Your task to perform on an android device: turn on translation in the chrome app Image 0: 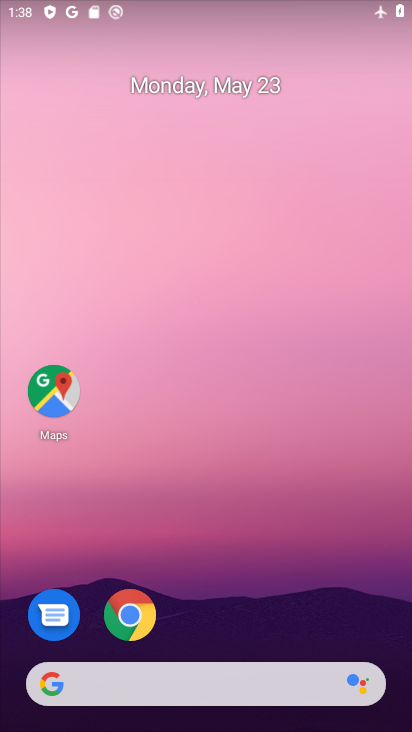
Step 0: drag from (217, 651) to (155, 22)
Your task to perform on an android device: turn on translation in the chrome app Image 1: 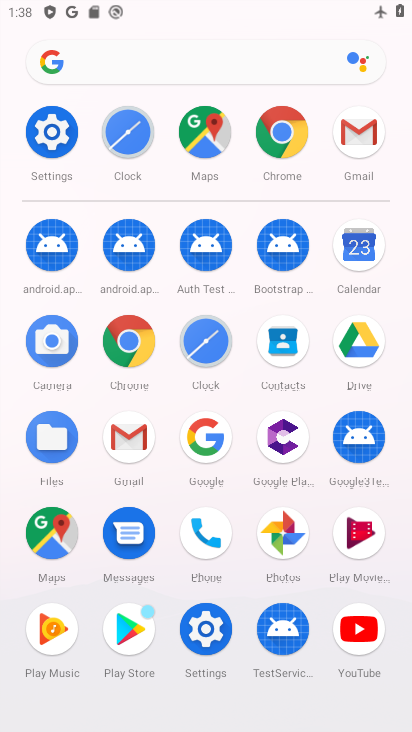
Step 1: click (283, 148)
Your task to perform on an android device: turn on translation in the chrome app Image 2: 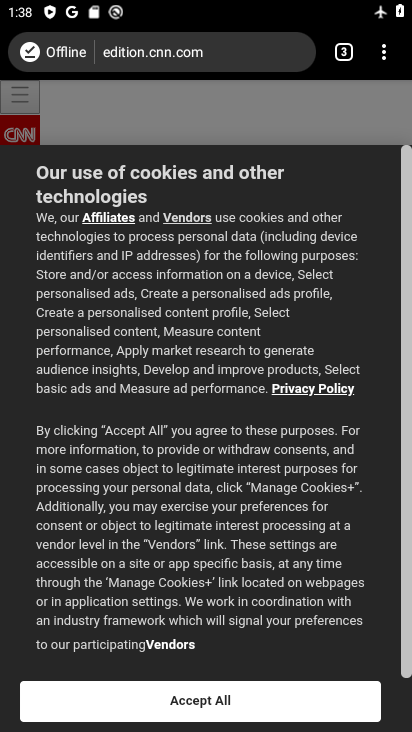
Step 2: click (380, 46)
Your task to perform on an android device: turn on translation in the chrome app Image 3: 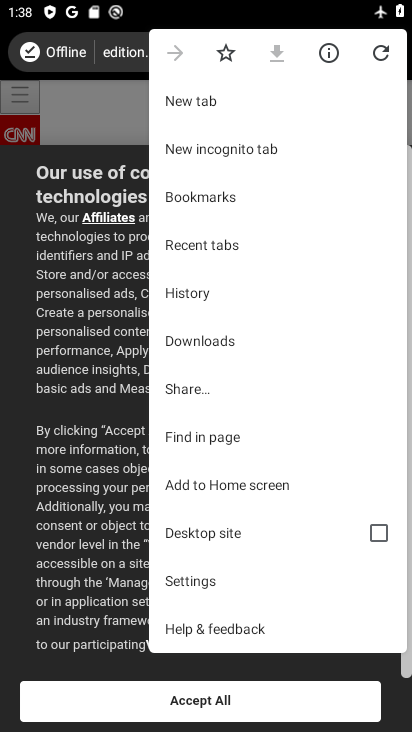
Step 3: click (200, 579)
Your task to perform on an android device: turn on translation in the chrome app Image 4: 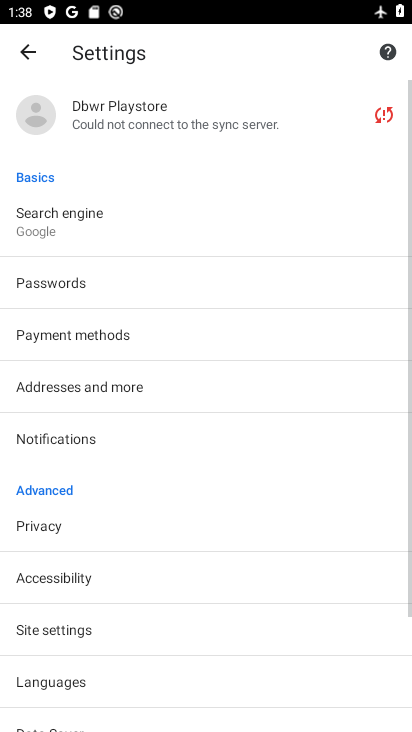
Step 4: drag from (200, 579) to (165, 326)
Your task to perform on an android device: turn on translation in the chrome app Image 5: 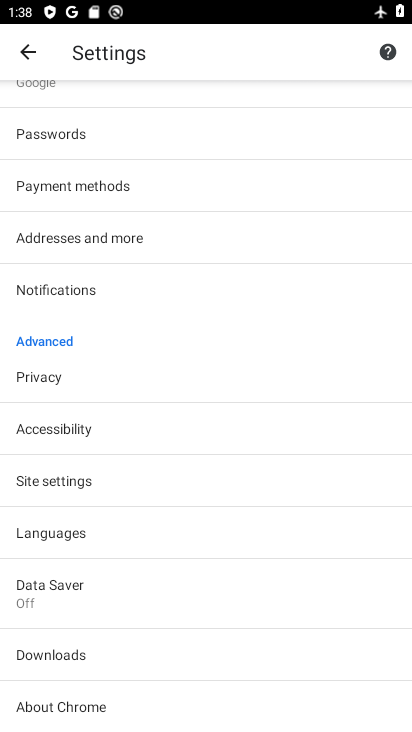
Step 5: click (56, 523)
Your task to perform on an android device: turn on translation in the chrome app Image 6: 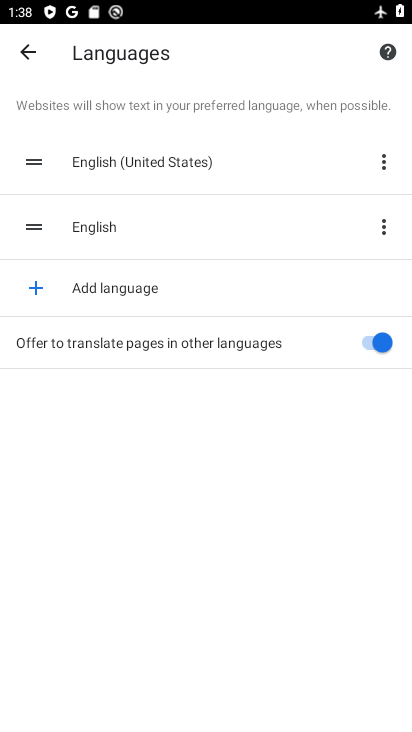
Step 6: task complete